Your task to perform on an android device: Search for seafood restaurants on Google Maps Image 0: 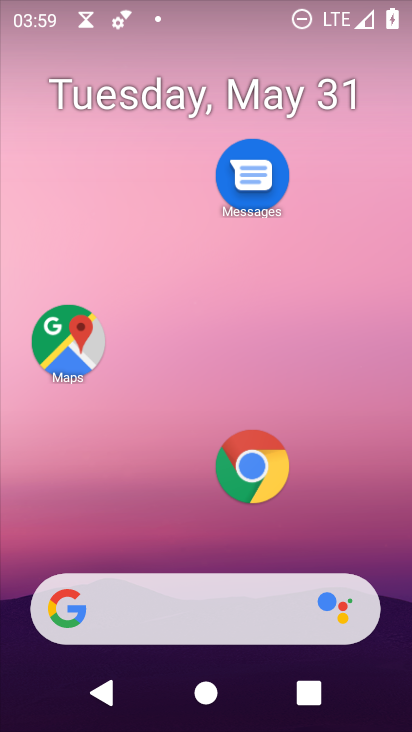
Step 0: click (71, 340)
Your task to perform on an android device: Search for seafood restaurants on Google Maps Image 1: 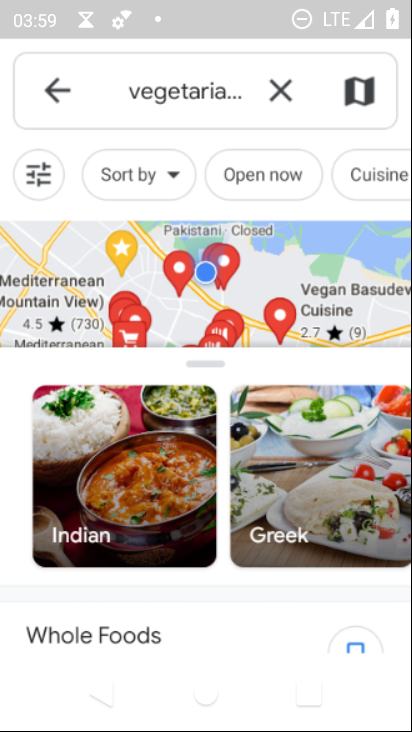
Step 1: click (281, 94)
Your task to perform on an android device: Search for seafood restaurants on Google Maps Image 2: 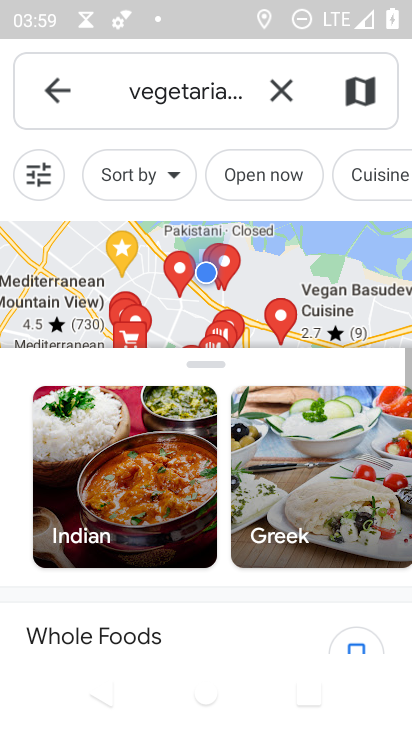
Step 2: click (283, 89)
Your task to perform on an android device: Search for seafood restaurants on Google Maps Image 3: 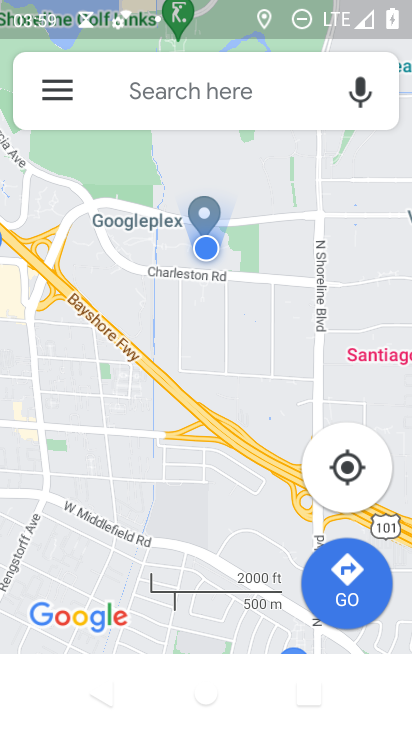
Step 3: click (165, 100)
Your task to perform on an android device: Search for seafood restaurants on Google Maps Image 4: 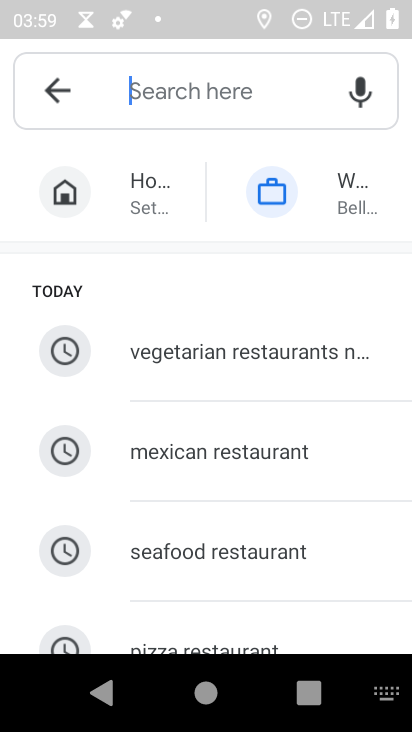
Step 4: type "sea"
Your task to perform on an android device: Search for seafood restaurants on Google Maps Image 5: 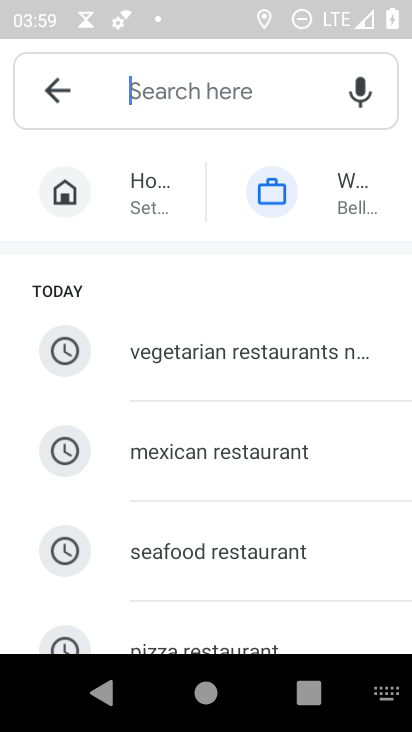
Step 5: click (217, 538)
Your task to perform on an android device: Search for seafood restaurants on Google Maps Image 6: 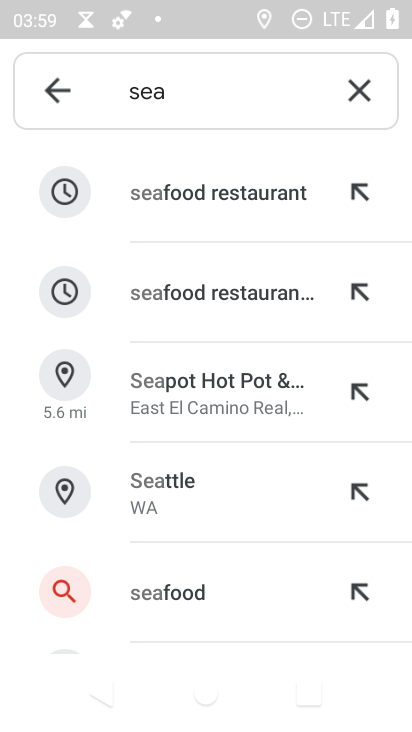
Step 6: click (215, 199)
Your task to perform on an android device: Search for seafood restaurants on Google Maps Image 7: 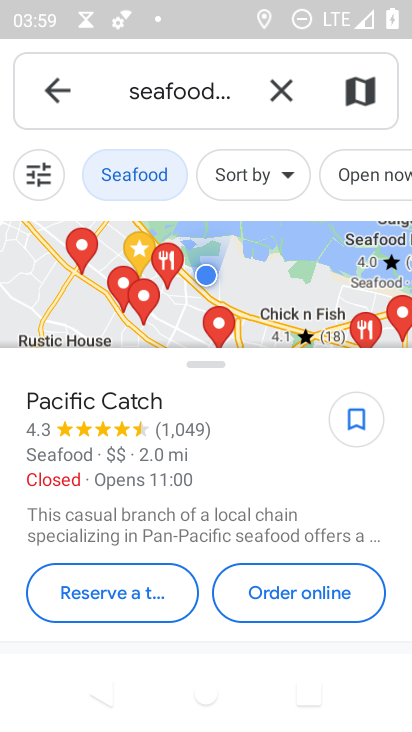
Step 7: task complete